Your task to perform on an android device: turn off improve location accuracy Image 0: 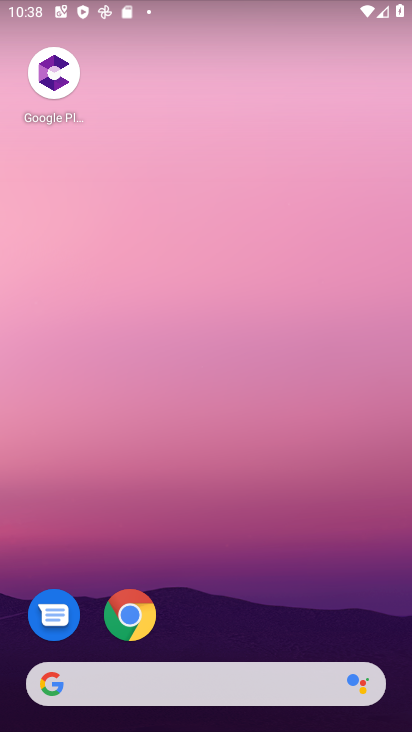
Step 0: drag from (245, 474) to (173, 0)
Your task to perform on an android device: turn off improve location accuracy Image 1: 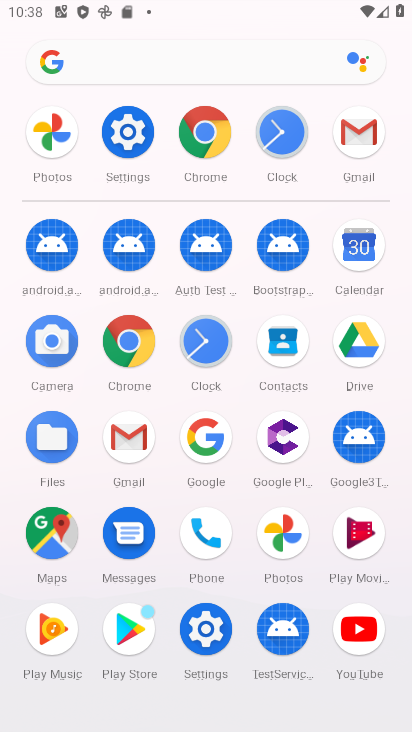
Step 1: click (144, 129)
Your task to perform on an android device: turn off improve location accuracy Image 2: 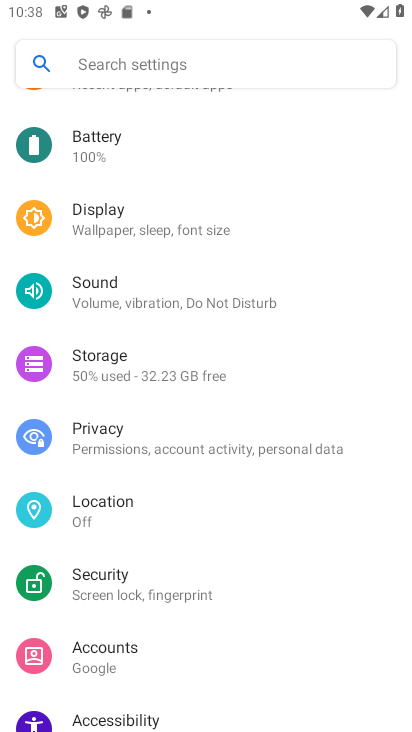
Step 2: click (201, 510)
Your task to perform on an android device: turn off improve location accuracy Image 3: 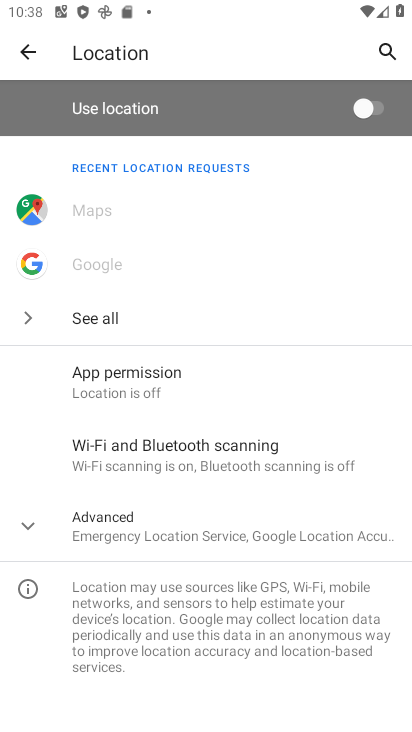
Step 3: click (257, 526)
Your task to perform on an android device: turn off improve location accuracy Image 4: 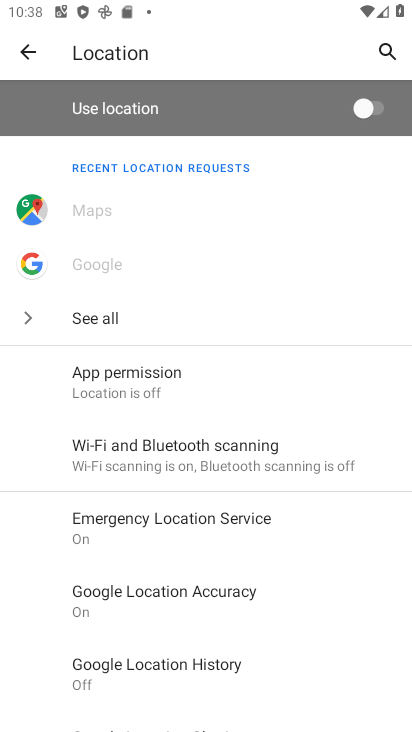
Step 4: click (250, 600)
Your task to perform on an android device: turn off improve location accuracy Image 5: 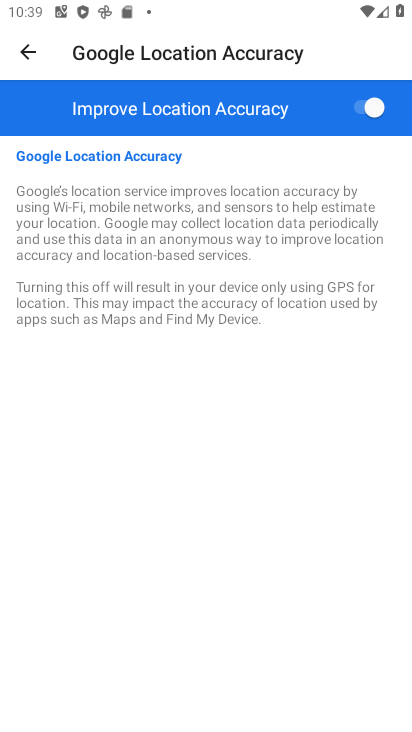
Step 5: click (364, 115)
Your task to perform on an android device: turn off improve location accuracy Image 6: 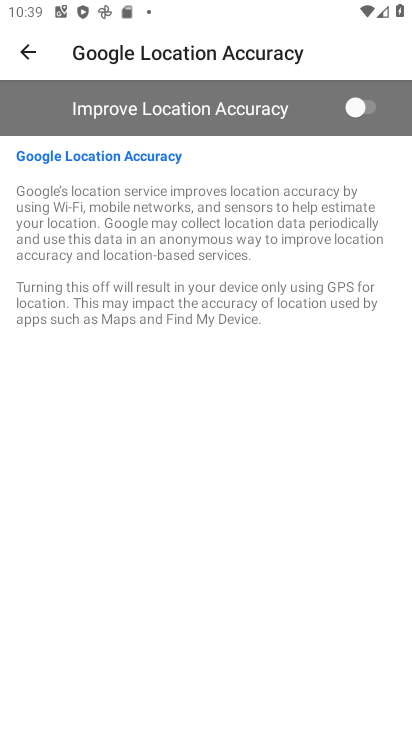
Step 6: task complete